Your task to perform on an android device: Open the web browser Image 0: 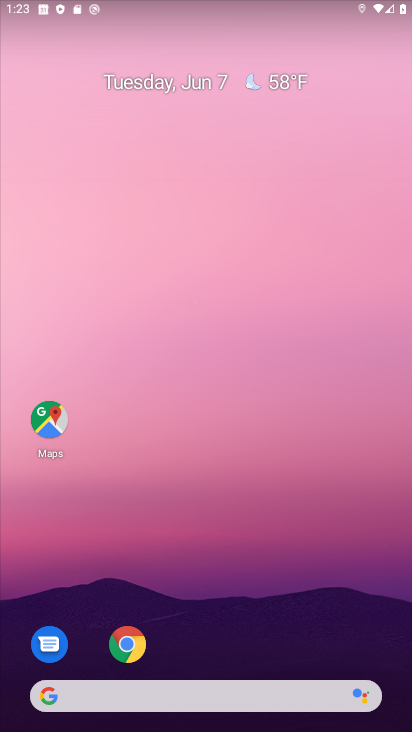
Step 0: click (132, 642)
Your task to perform on an android device: Open the web browser Image 1: 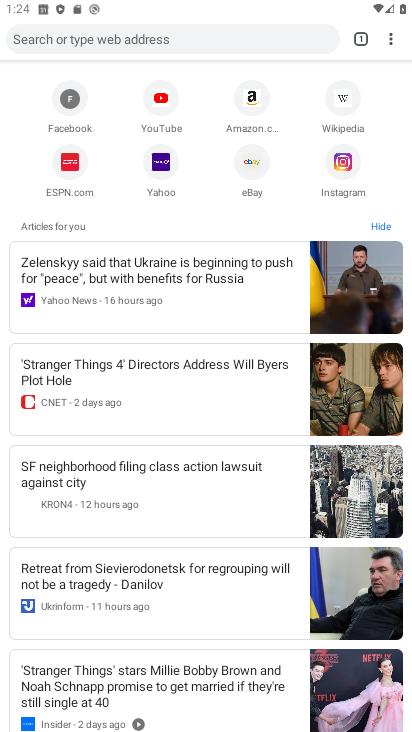
Step 1: task complete